Your task to perform on an android device: Go to wifi settings Image 0: 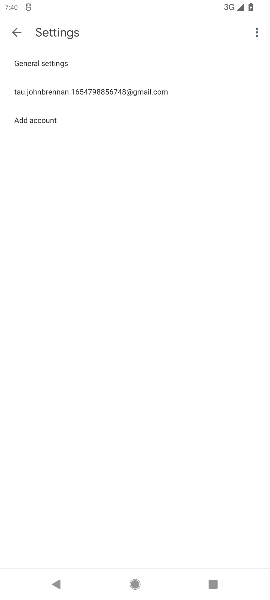
Step 0: press home button
Your task to perform on an android device: Go to wifi settings Image 1: 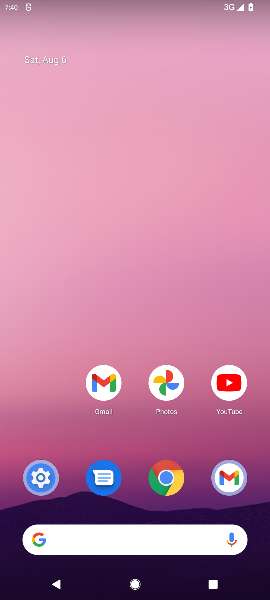
Step 1: click (39, 474)
Your task to perform on an android device: Go to wifi settings Image 2: 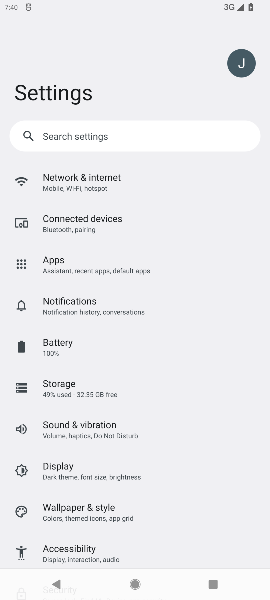
Step 2: click (74, 174)
Your task to perform on an android device: Go to wifi settings Image 3: 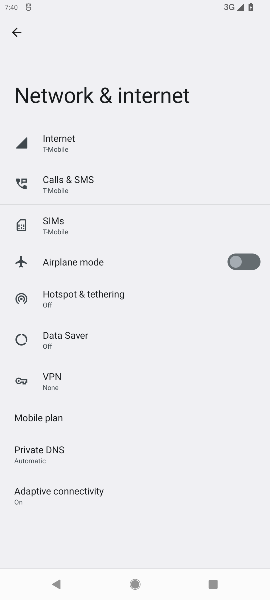
Step 3: click (83, 137)
Your task to perform on an android device: Go to wifi settings Image 4: 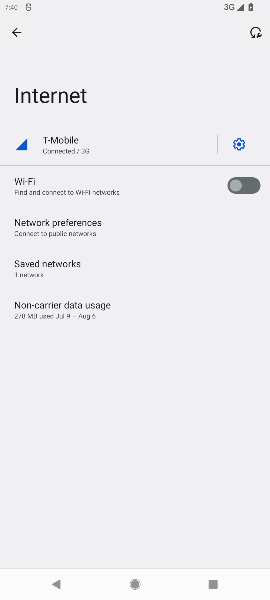
Step 4: click (32, 185)
Your task to perform on an android device: Go to wifi settings Image 5: 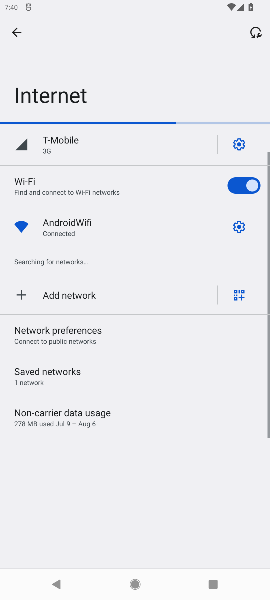
Step 5: task complete